Your task to perform on an android device: Open wifi settings Image 0: 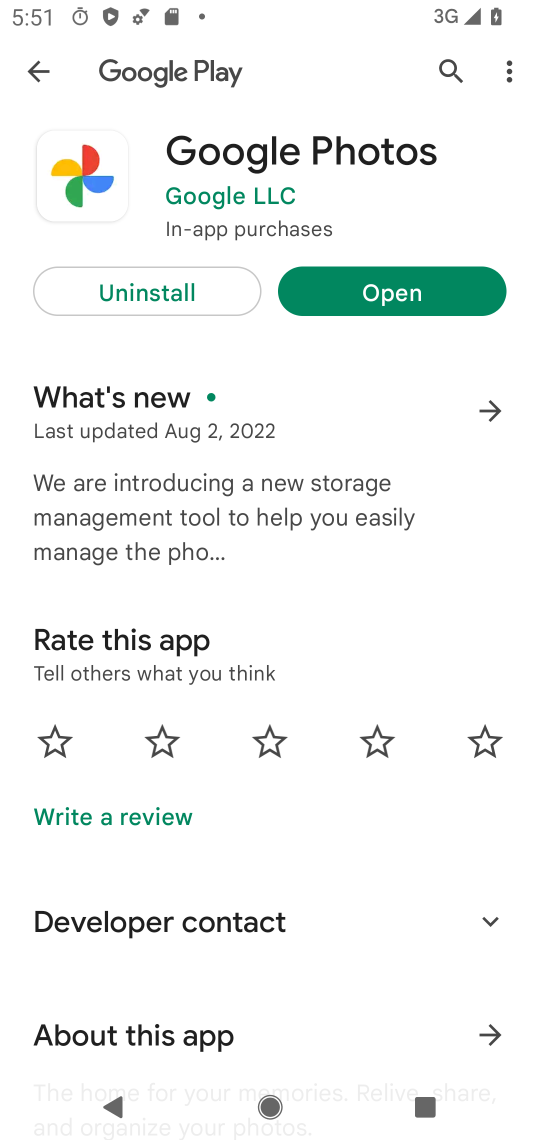
Step 0: press home button
Your task to perform on an android device: Open wifi settings Image 1: 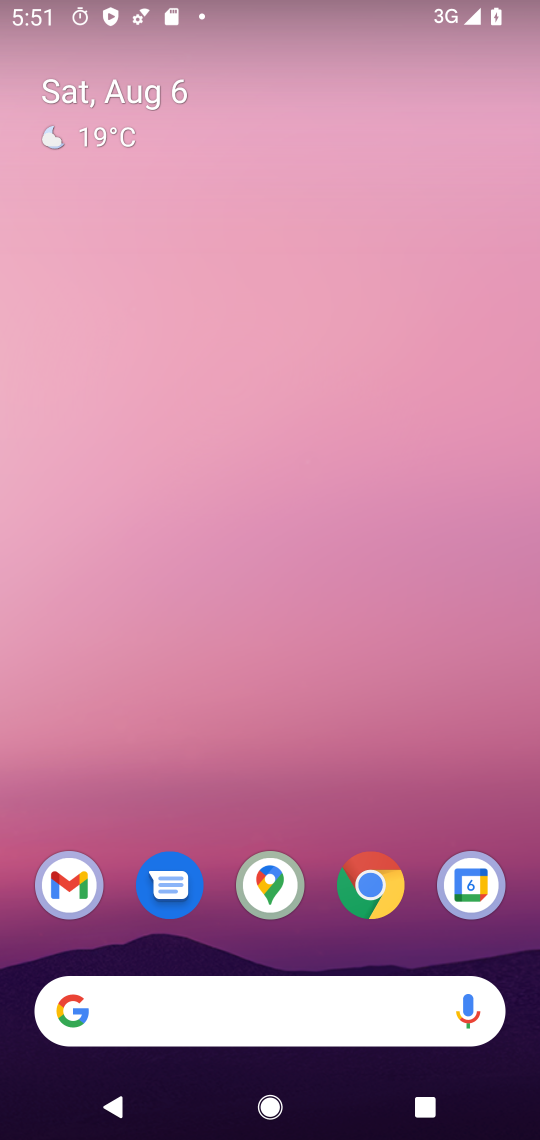
Step 1: drag from (490, 961) to (256, 0)
Your task to perform on an android device: Open wifi settings Image 2: 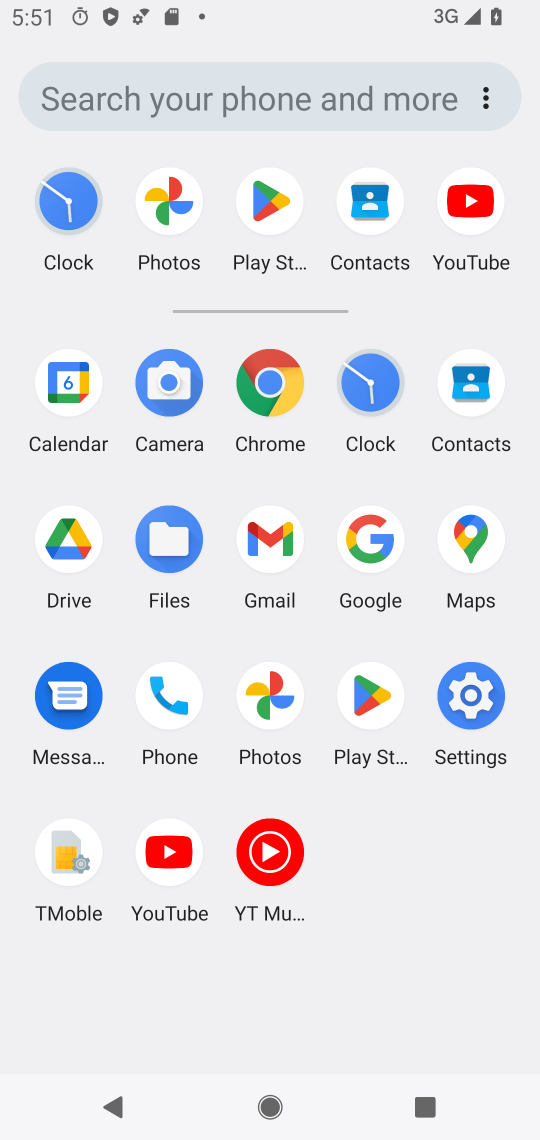
Step 2: click (473, 705)
Your task to perform on an android device: Open wifi settings Image 3: 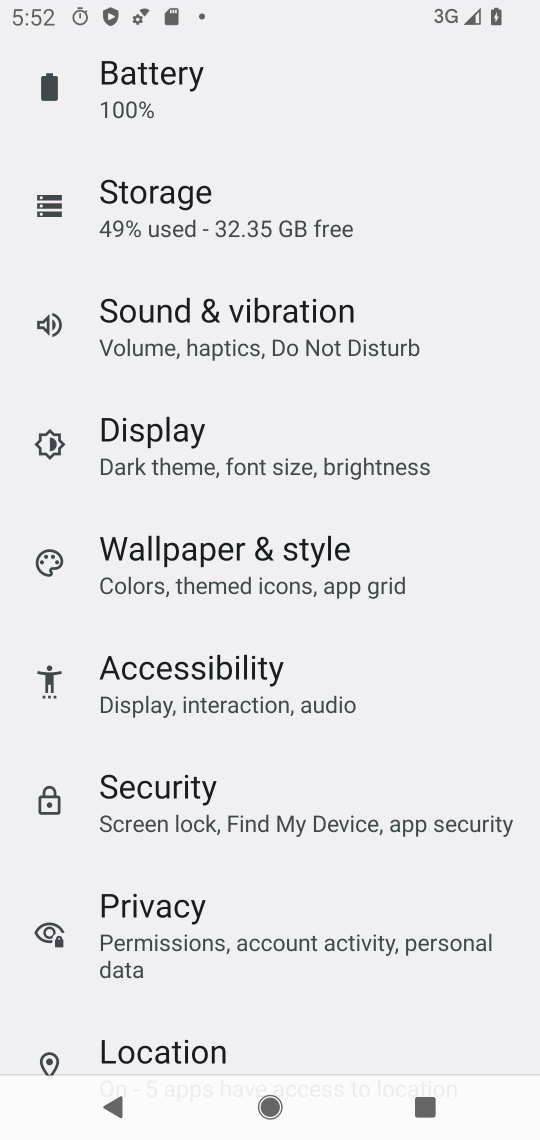
Step 3: drag from (250, 130) to (377, 1056)
Your task to perform on an android device: Open wifi settings Image 4: 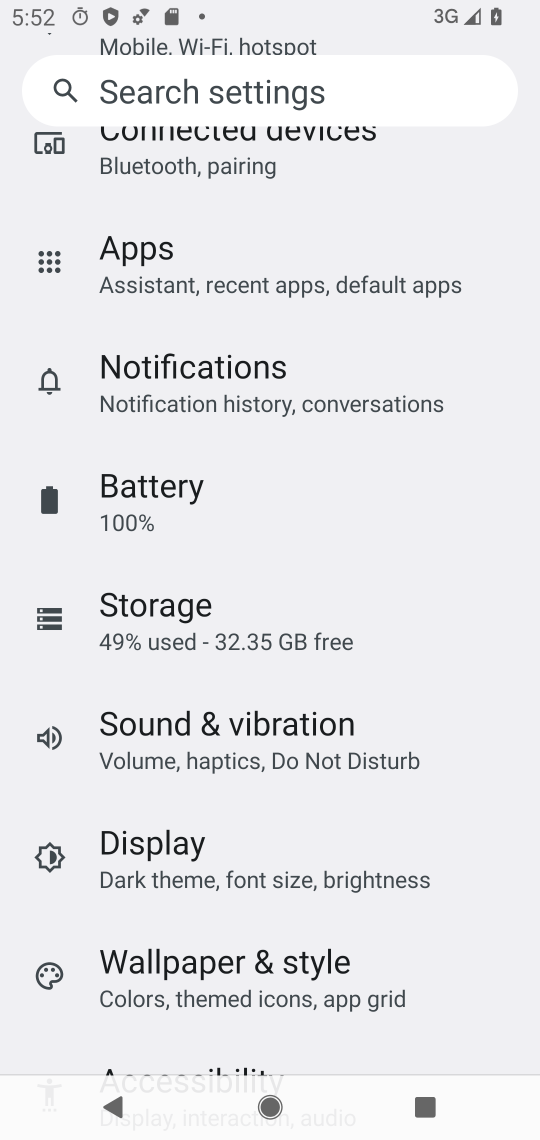
Step 4: drag from (222, 291) to (311, 1098)
Your task to perform on an android device: Open wifi settings Image 5: 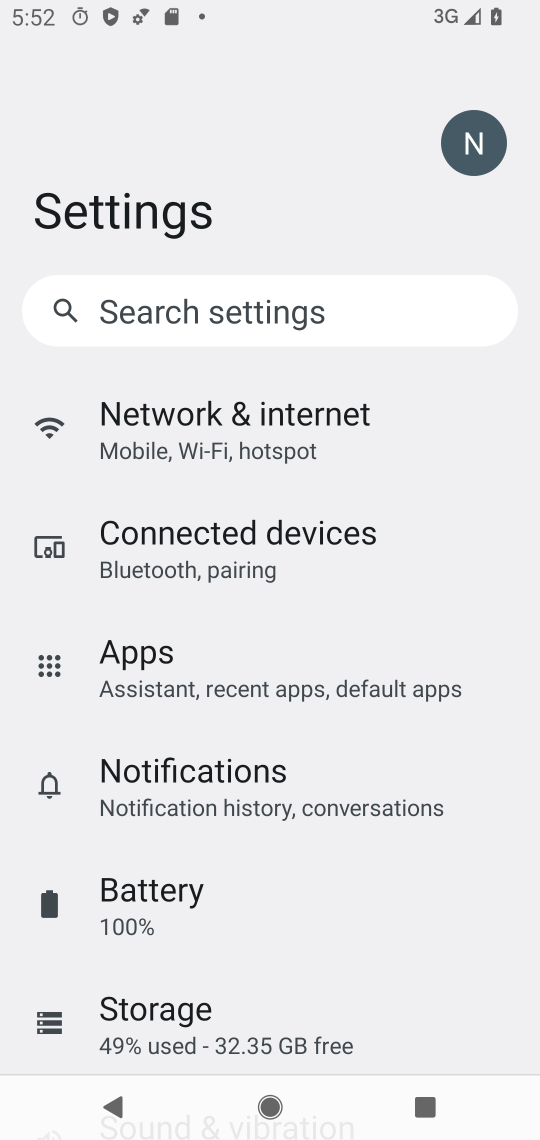
Step 5: click (244, 449)
Your task to perform on an android device: Open wifi settings Image 6: 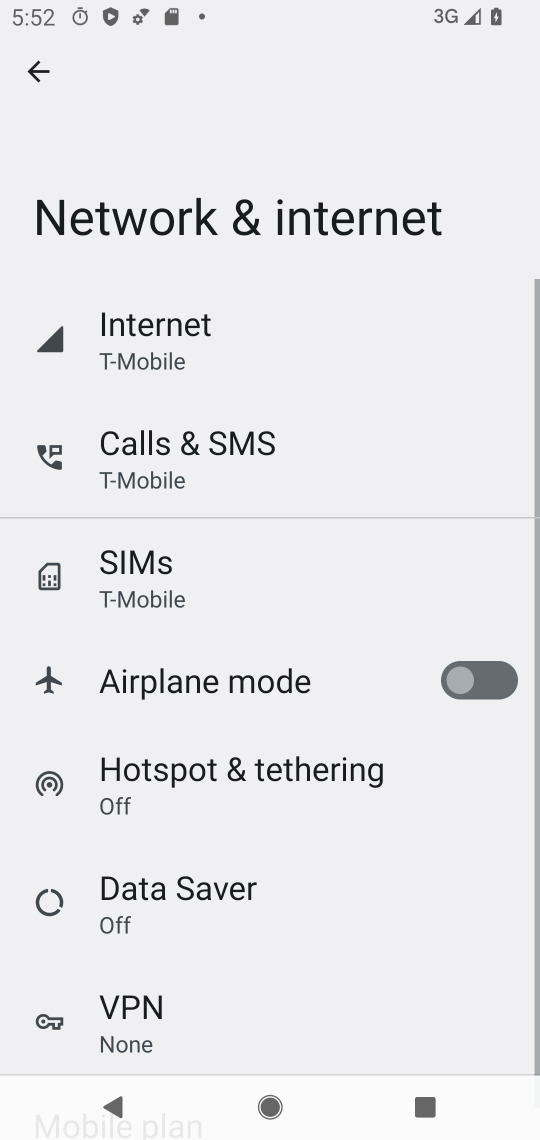
Step 6: task complete